Your task to perform on an android device: turn on wifi Image 0: 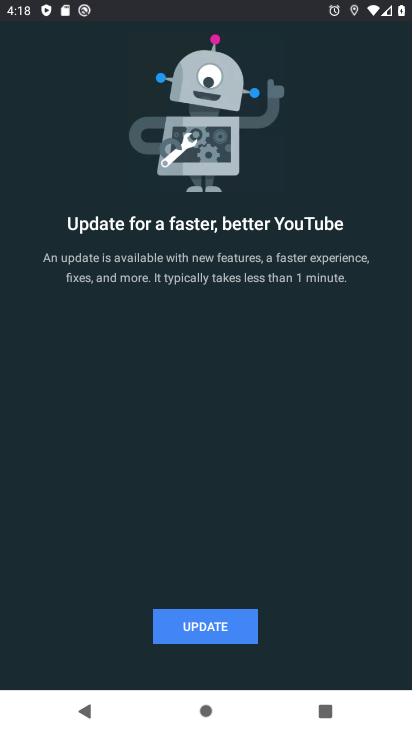
Step 0: press home button
Your task to perform on an android device: turn on wifi Image 1: 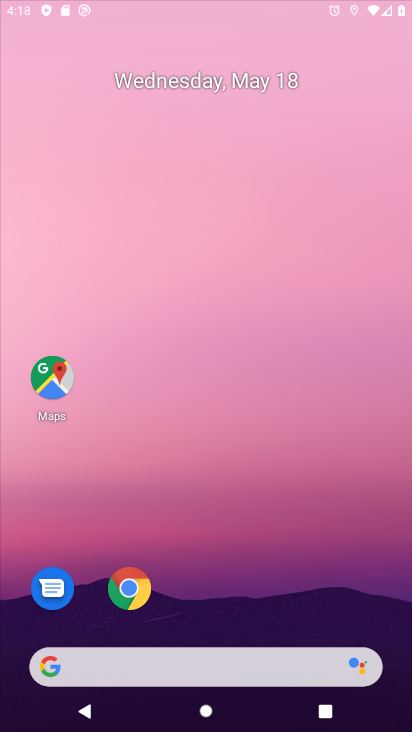
Step 1: drag from (284, 565) to (263, 118)
Your task to perform on an android device: turn on wifi Image 2: 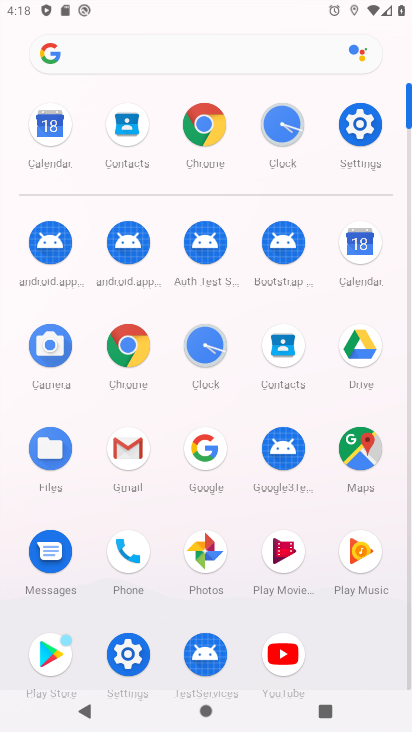
Step 2: click (350, 125)
Your task to perform on an android device: turn on wifi Image 3: 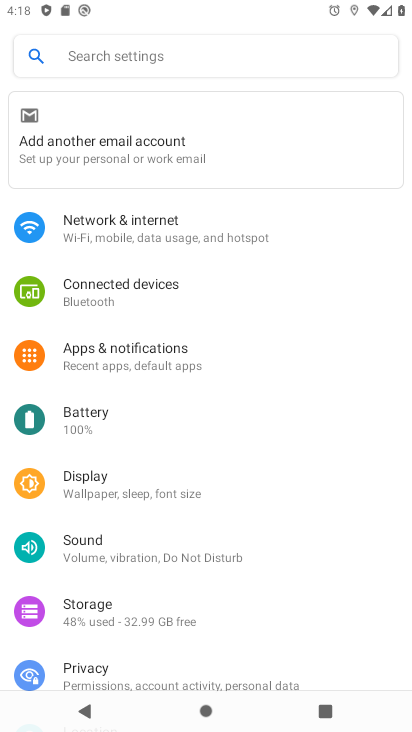
Step 3: click (176, 239)
Your task to perform on an android device: turn on wifi Image 4: 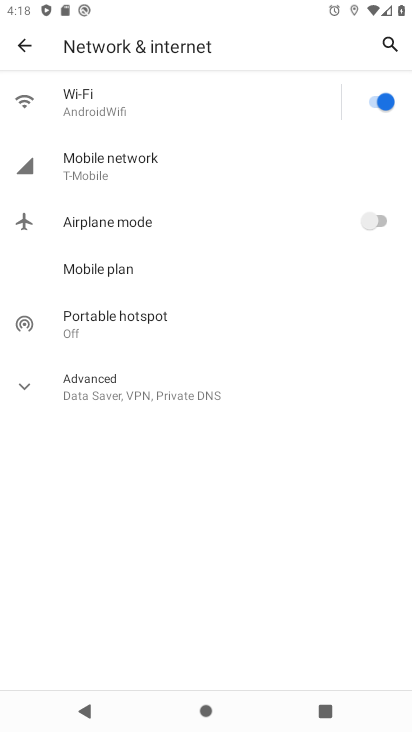
Step 4: click (208, 110)
Your task to perform on an android device: turn on wifi Image 5: 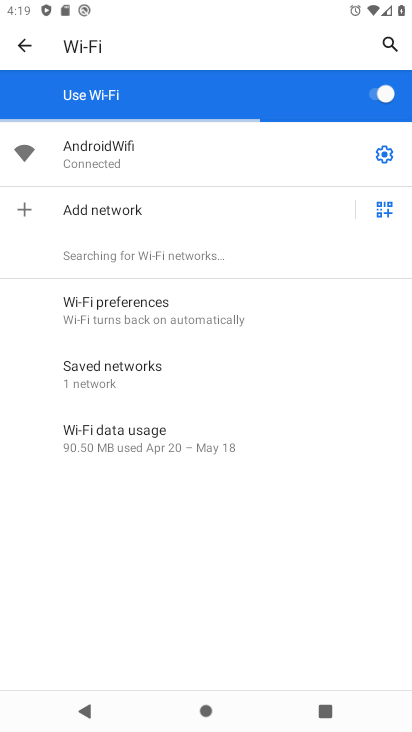
Step 5: task complete